Your task to perform on an android device: Open the calendar app, open the side menu, and click the "Day" option Image 0: 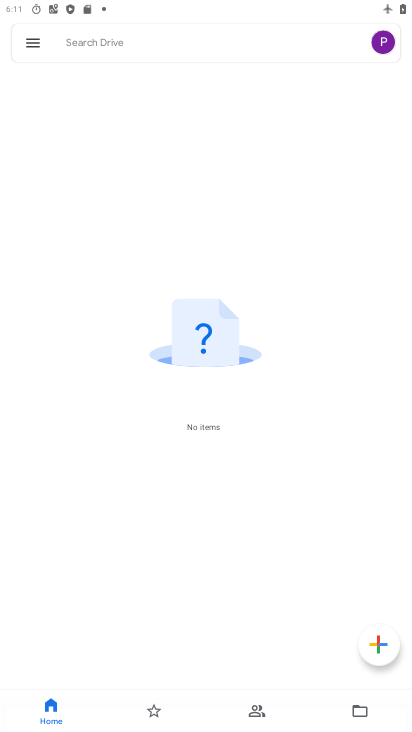
Step 0: press home button
Your task to perform on an android device: Open the calendar app, open the side menu, and click the "Day" option Image 1: 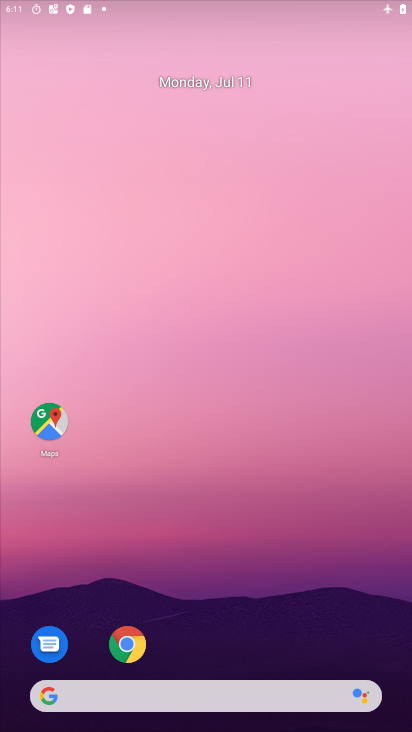
Step 1: drag from (309, 685) to (390, 6)
Your task to perform on an android device: Open the calendar app, open the side menu, and click the "Day" option Image 2: 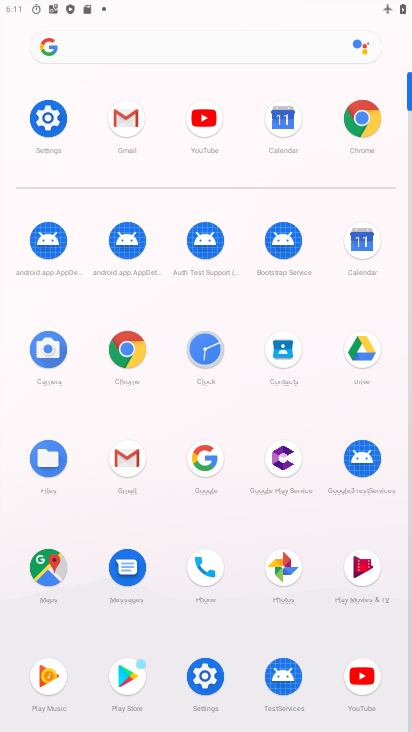
Step 2: click (363, 243)
Your task to perform on an android device: Open the calendar app, open the side menu, and click the "Day" option Image 3: 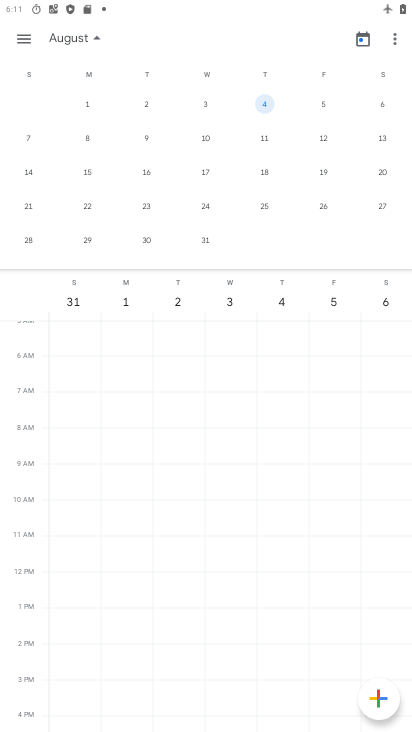
Step 3: click (21, 35)
Your task to perform on an android device: Open the calendar app, open the side menu, and click the "Day" option Image 4: 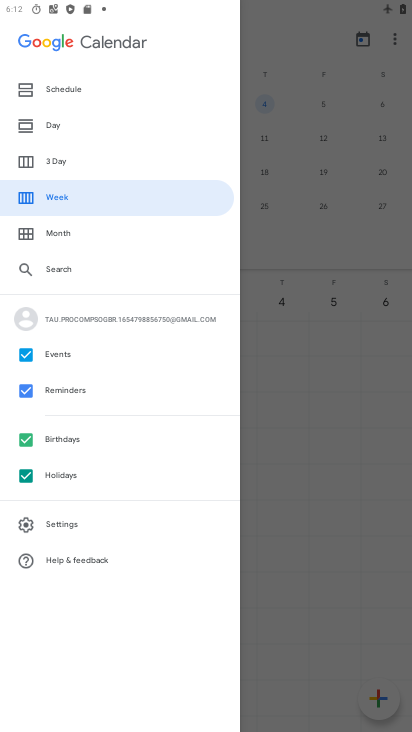
Step 4: click (71, 119)
Your task to perform on an android device: Open the calendar app, open the side menu, and click the "Day" option Image 5: 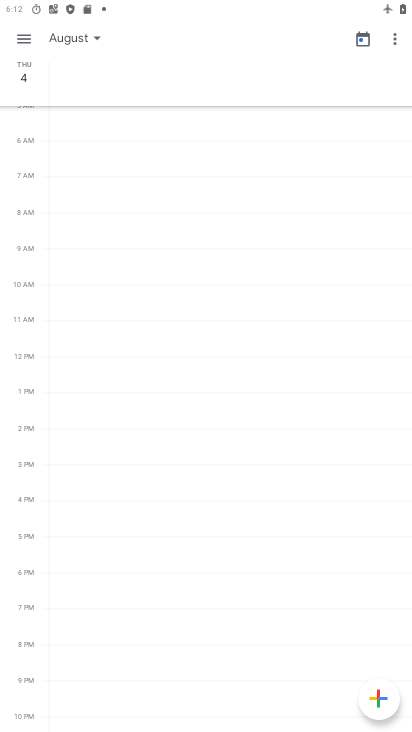
Step 5: task complete